Your task to perform on an android device: set default search engine in the chrome app Image 0: 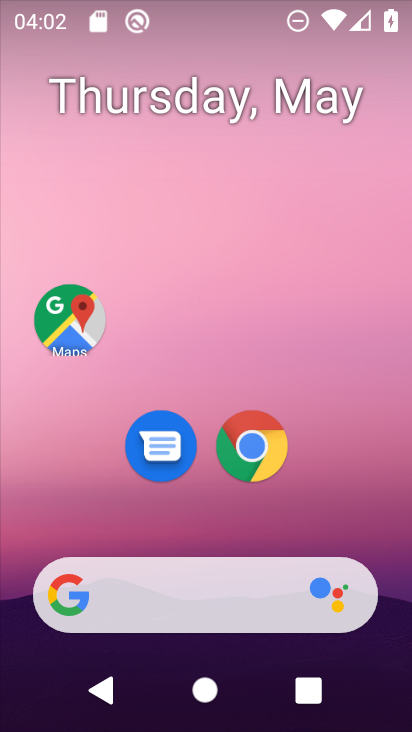
Step 0: click (253, 450)
Your task to perform on an android device: set default search engine in the chrome app Image 1: 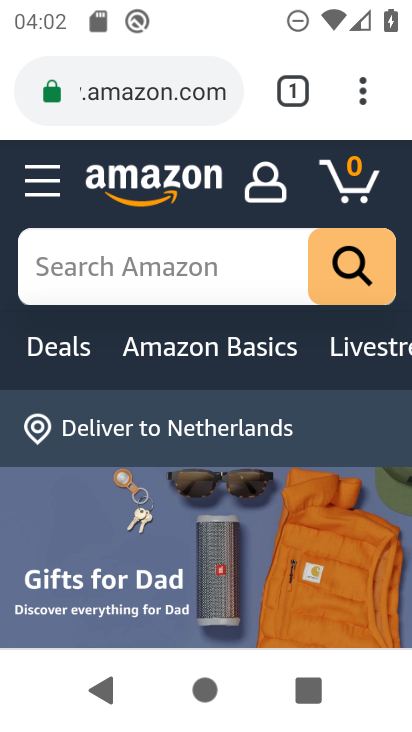
Step 1: click (362, 96)
Your task to perform on an android device: set default search engine in the chrome app Image 2: 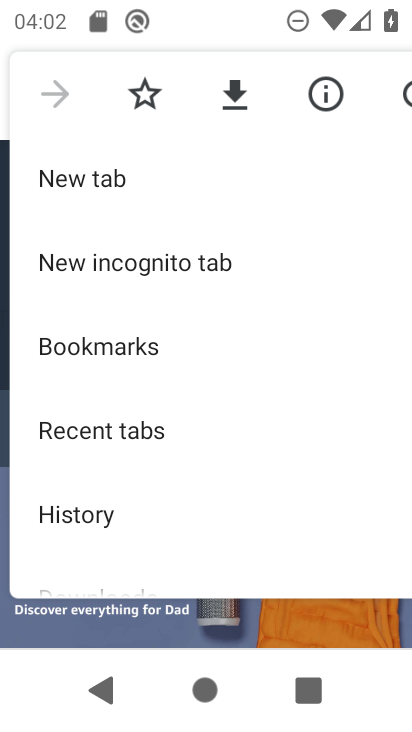
Step 2: drag from (216, 474) to (219, 30)
Your task to perform on an android device: set default search engine in the chrome app Image 3: 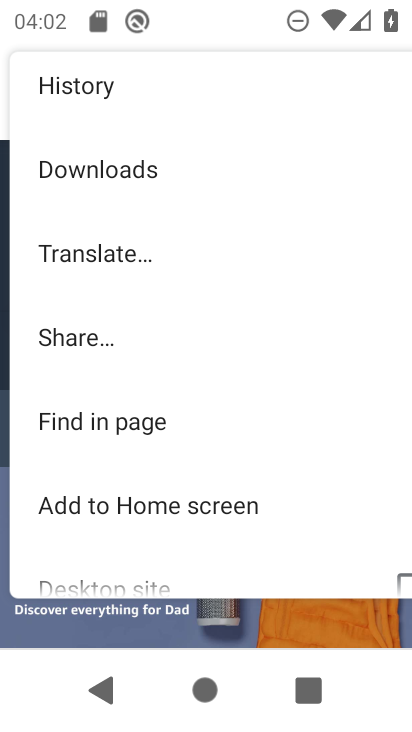
Step 3: drag from (211, 451) to (213, 104)
Your task to perform on an android device: set default search engine in the chrome app Image 4: 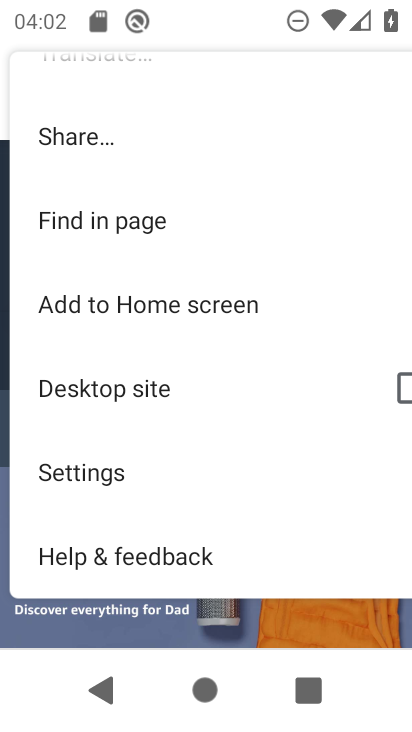
Step 4: click (89, 477)
Your task to perform on an android device: set default search engine in the chrome app Image 5: 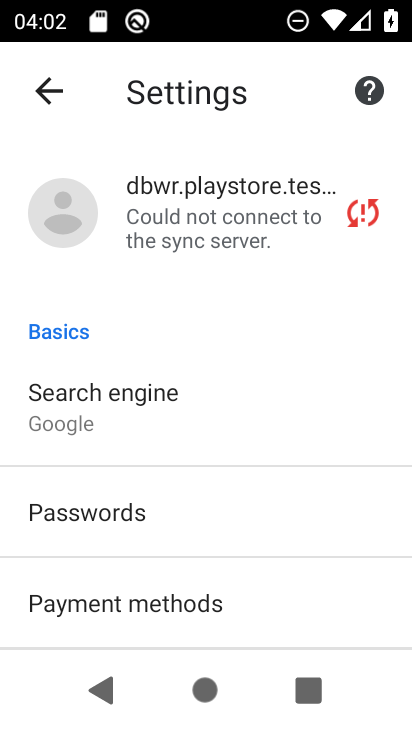
Step 5: click (76, 405)
Your task to perform on an android device: set default search engine in the chrome app Image 6: 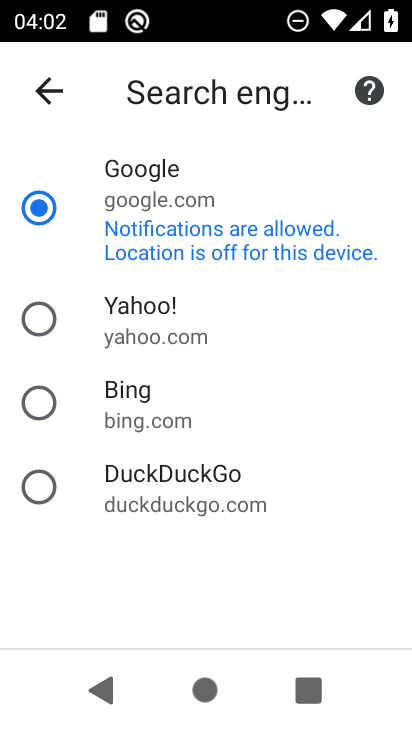
Step 6: click (46, 319)
Your task to perform on an android device: set default search engine in the chrome app Image 7: 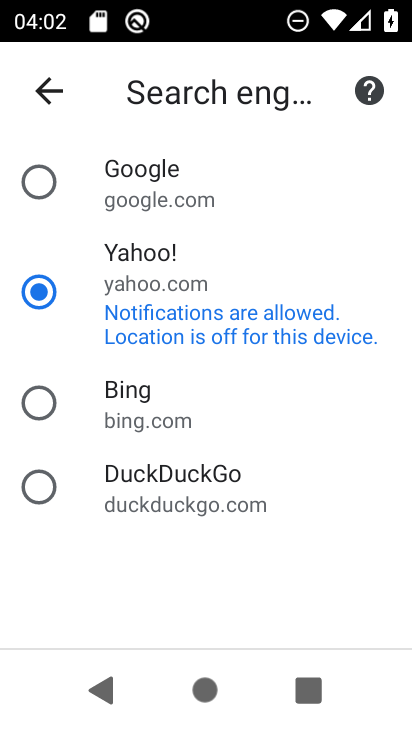
Step 7: task complete